Your task to perform on an android device: Open Yahoo.com Image 0: 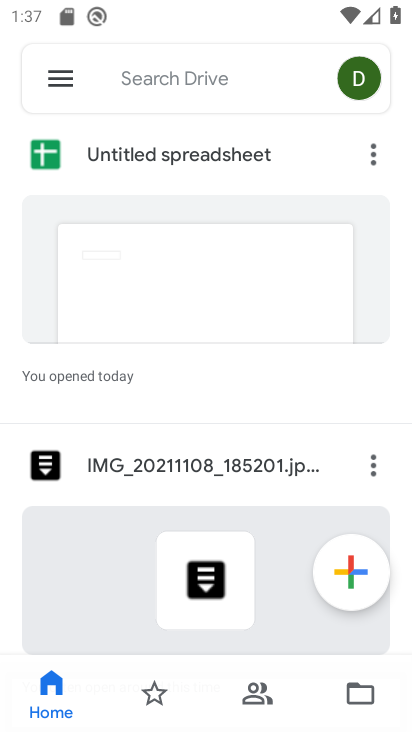
Step 0: press home button
Your task to perform on an android device: Open Yahoo.com Image 1: 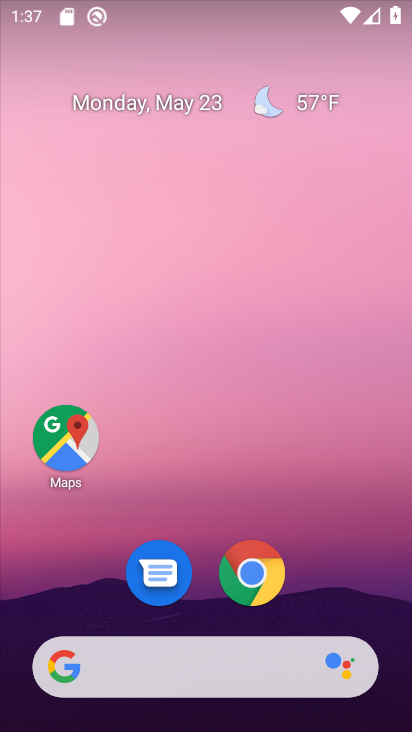
Step 1: click (252, 575)
Your task to perform on an android device: Open Yahoo.com Image 2: 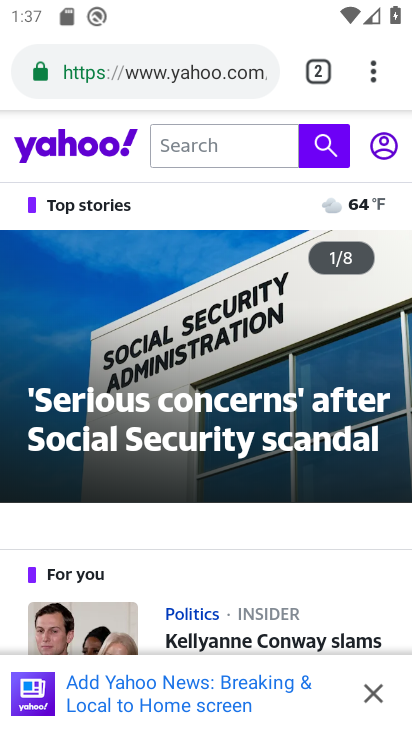
Step 2: task complete